Your task to perform on an android device: toggle sleep mode Image 0: 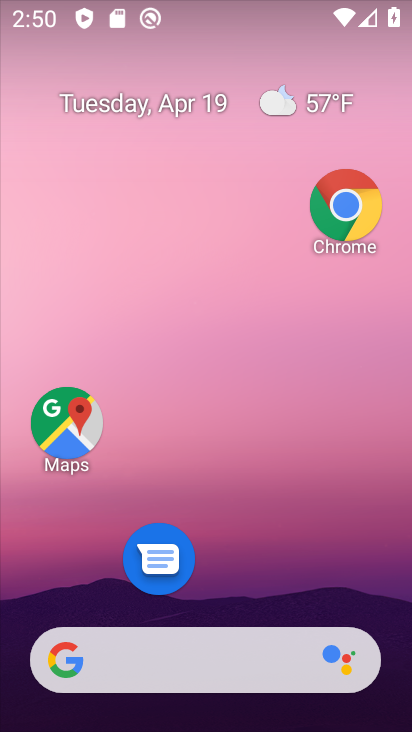
Step 0: drag from (246, 552) to (310, 128)
Your task to perform on an android device: toggle sleep mode Image 1: 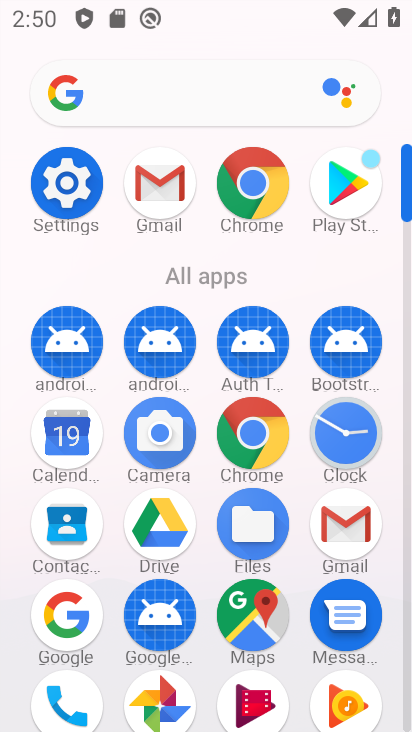
Step 1: drag from (207, 614) to (280, 183)
Your task to perform on an android device: toggle sleep mode Image 2: 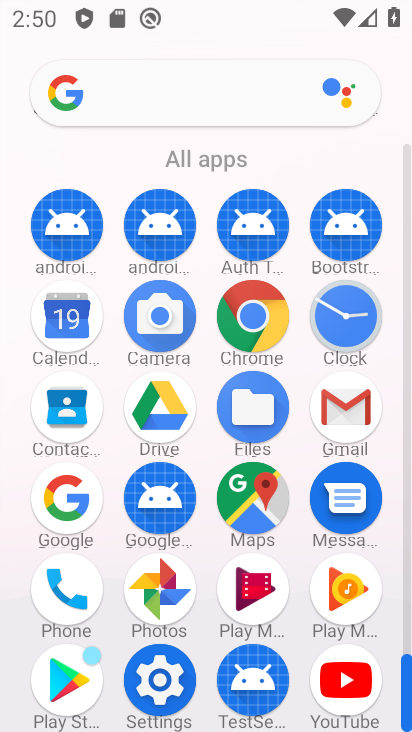
Step 2: drag from (202, 624) to (254, 321)
Your task to perform on an android device: toggle sleep mode Image 3: 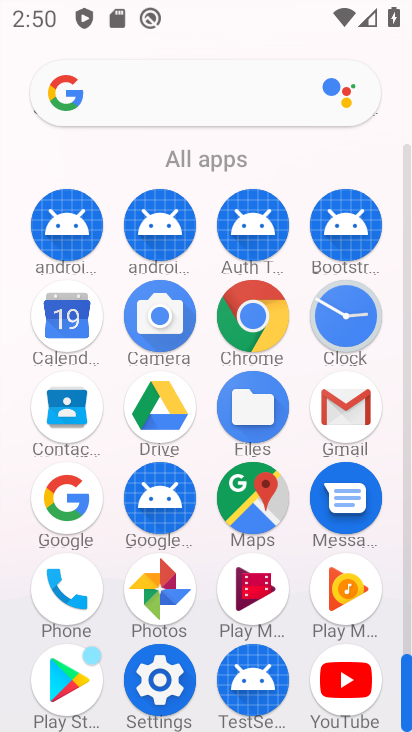
Step 3: click (161, 677)
Your task to perform on an android device: toggle sleep mode Image 4: 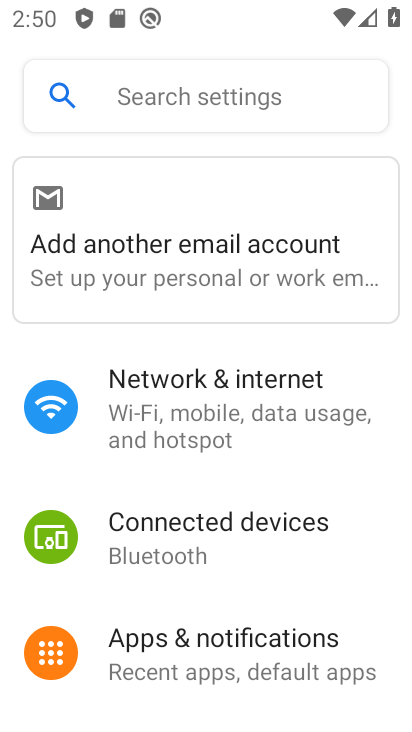
Step 4: drag from (209, 700) to (273, 331)
Your task to perform on an android device: toggle sleep mode Image 5: 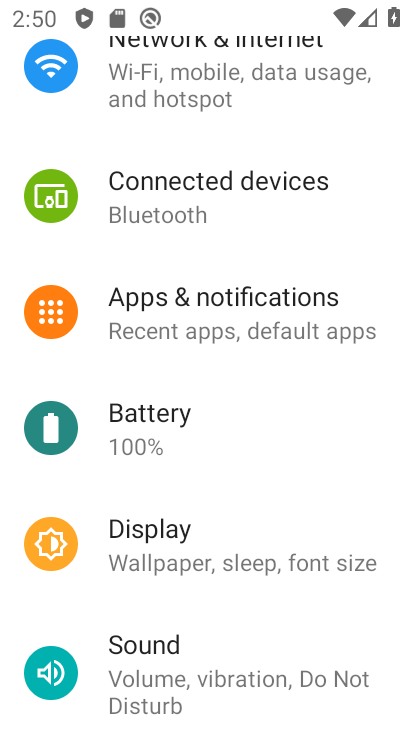
Step 5: click (179, 544)
Your task to perform on an android device: toggle sleep mode Image 6: 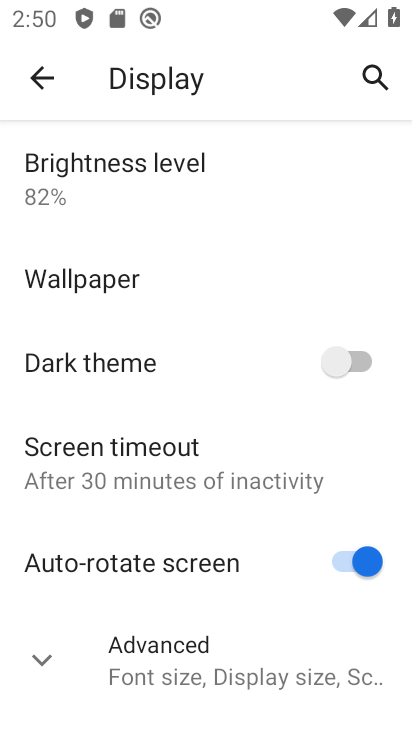
Step 6: task complete